Your task to perform on an android device: turn on translation in the chrome app Image 0: 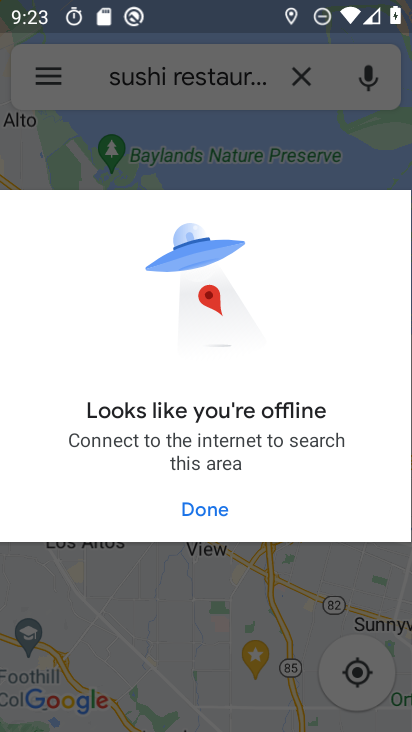
Step 0: press home button
Your task to perform on an android device: turn on translation in the chrome app Image 1: 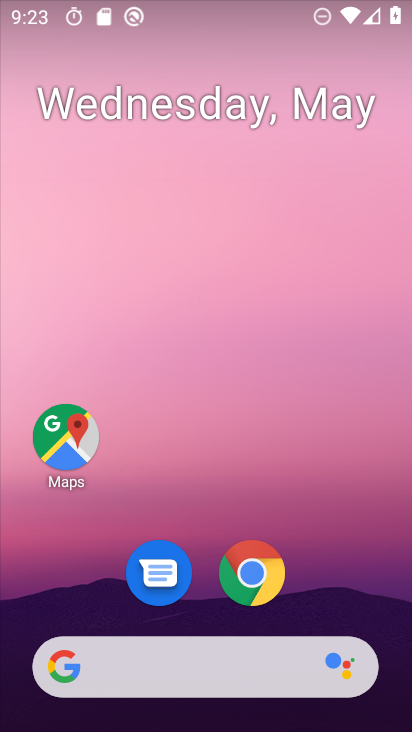
Step 1: click (243, 580)
Your task to perform on an android device: turn on translation in the chrome app Image 2: 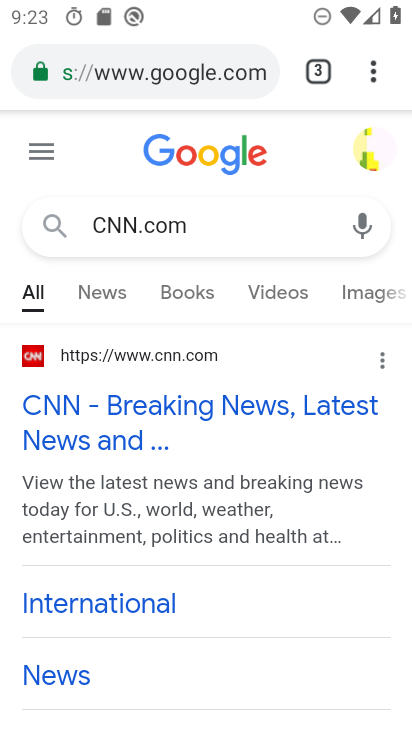
Step 2: click (373, 76)
Your task to perform on an android device: turn on translation in the chrome app Image 3: 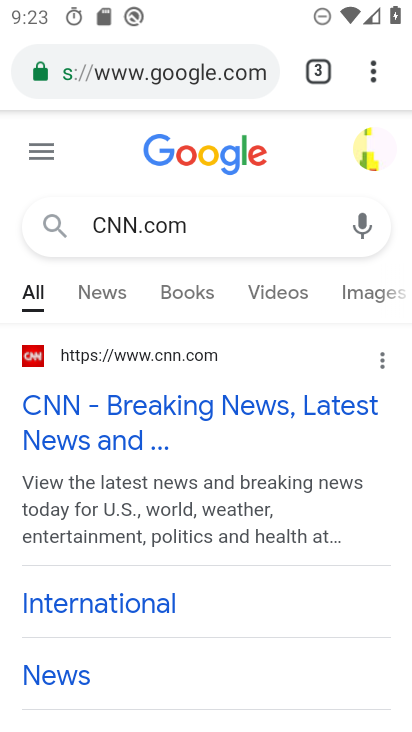
Step 3: drag from (288, 659) to (289, 178)
Your task to perform on an android device: turn on translation in the chrome app Image 4: 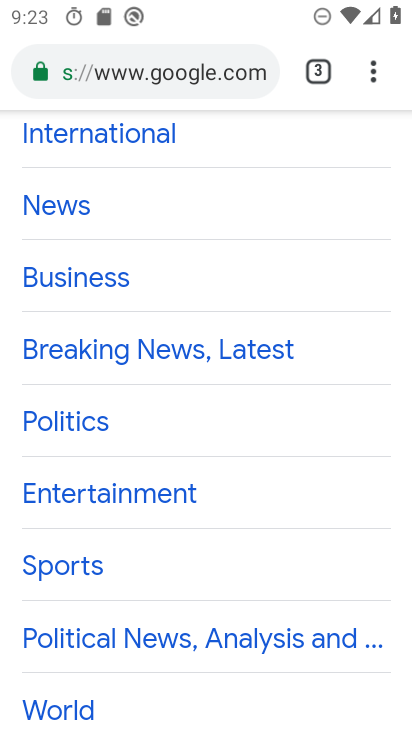
Step 4: click (371, 65)
Your task to perform on an android device: turn on translation in the chrome app Image 5: 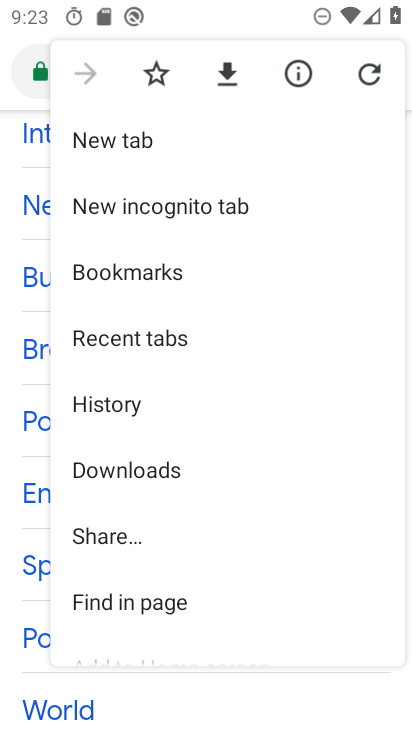
Step 5: drag from (269, 593) to (289, 290)
Your task to perform on an android device: turn on translation in the chrome app Image 6: 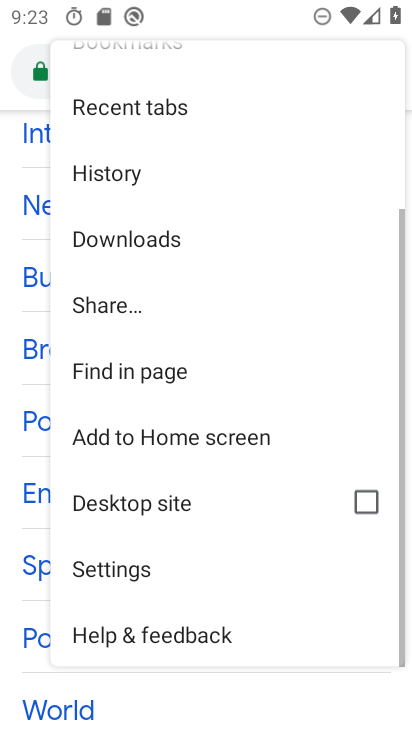
Step 6: click (136, 571)
Your task to perform on an android device: turn on translation in the chrome app Image 7: 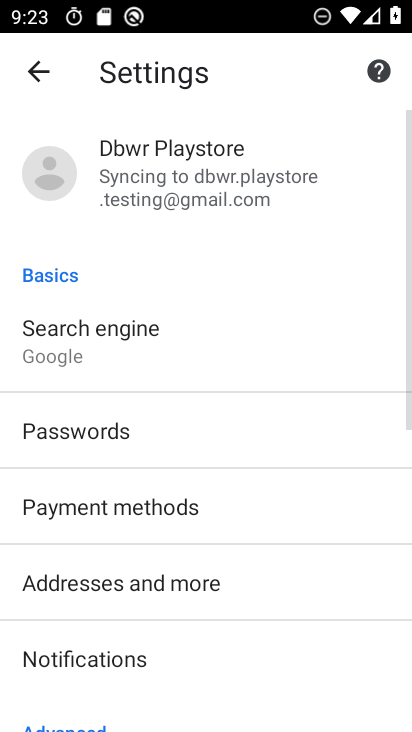
Step 7: drag from (304, 700) to (340, 319)
Your task to perform on an android device: turn on translation in the chrome app Image 8: 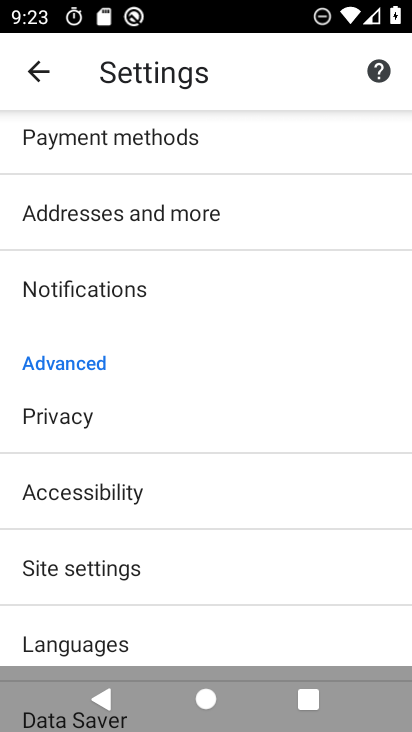
Step 8: drag from (271, 643) to (281, 380)
Your task to perform on an android device: turn on translation in the chrome app Image 9: 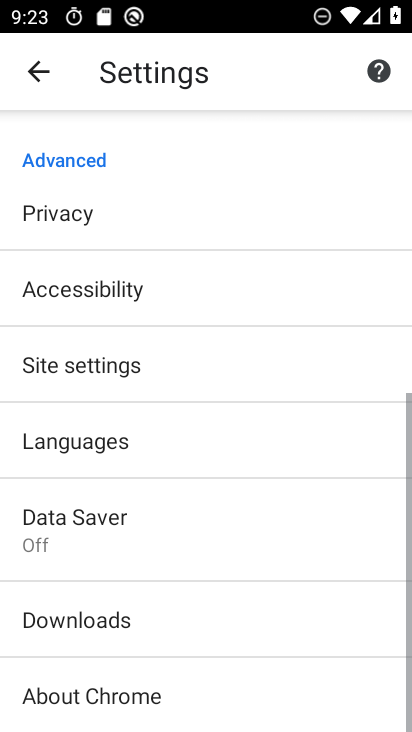
Step 9: click (78, 435)
Your task to perform on an android device: turn on translation in the chrome app Image 10: 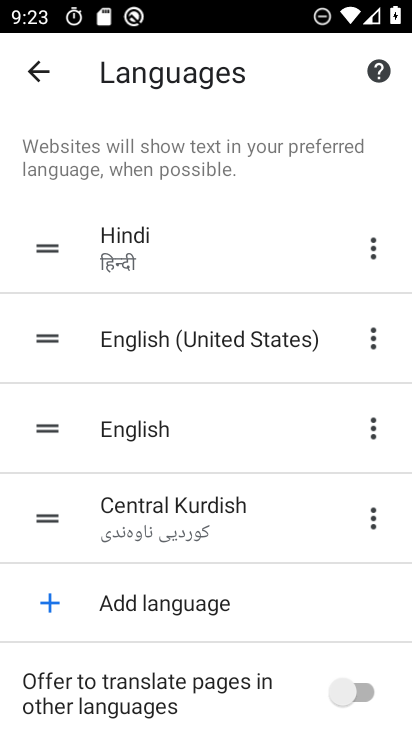
Step 10: click (366, 689)
Your task to perform on an android device: turn on translation in the chrome app Image 11: 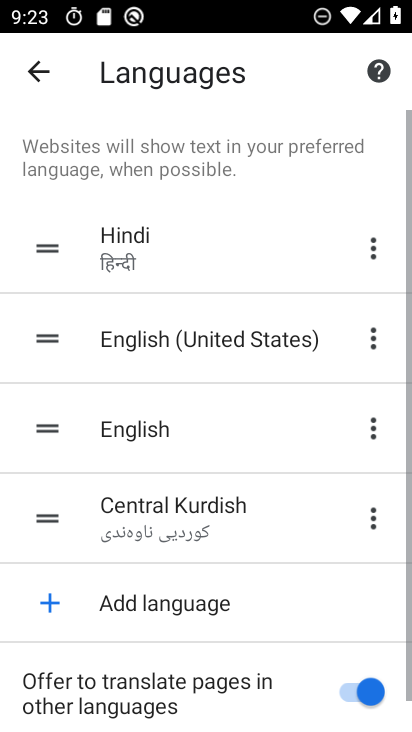
Step 11: task complete